Your task to perform on an android device: set an alarm Image 0: 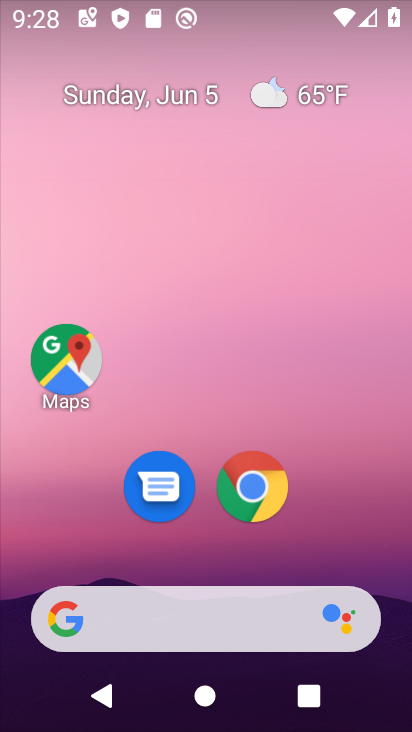
Step 0: drag from (392, 543) to (357, 193)
Your task to perform on an android device: set an alarm Image 1: 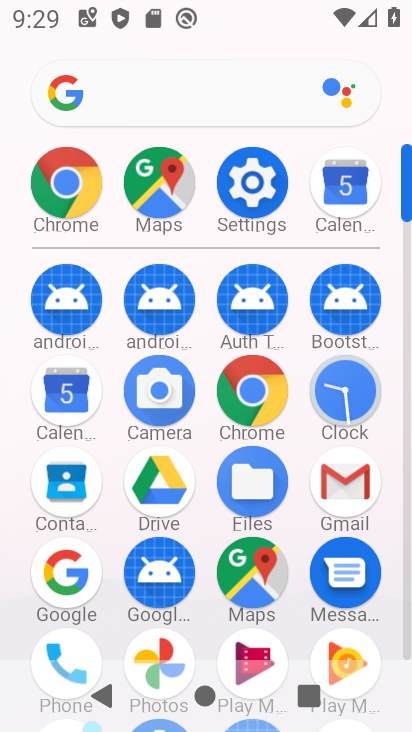
Step 1: click (324, 411)
Your task to perform on an android device: set an alarm Image 2: 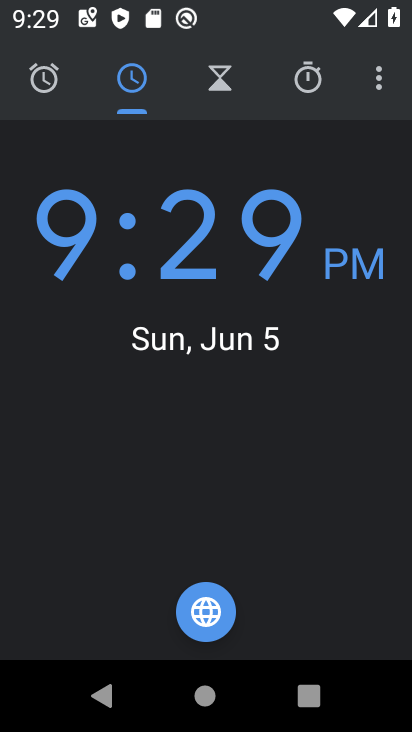
Step 2: click (64, 82)
Your task to perform on an android device: set an alarm Image 3: 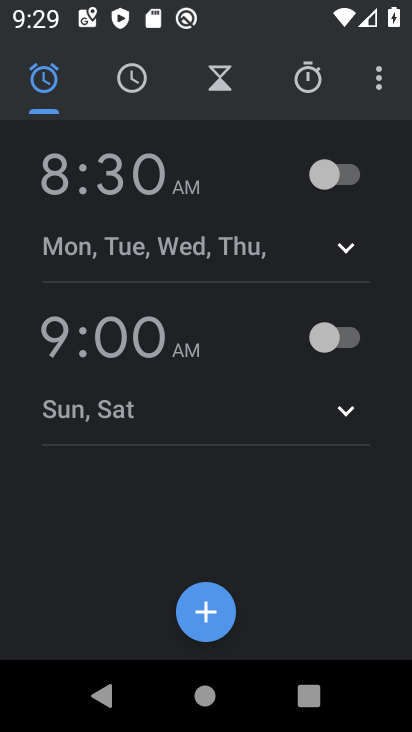
Step 3: click (220, 625)
Your task to perform on an android device: set an alarm Image 4: 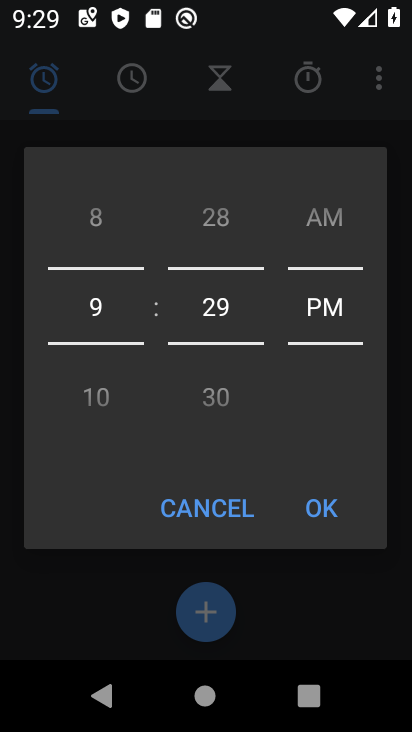
Step 4: click (315, 518)
Your task to perform on an android device: set an alarm Image 5: 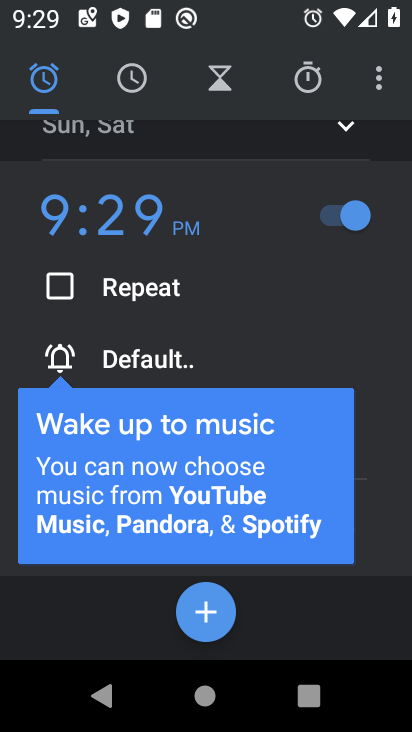
Step 5: task complete